Your task to perform on an android device: toggle translation in the chrome app Image 0: 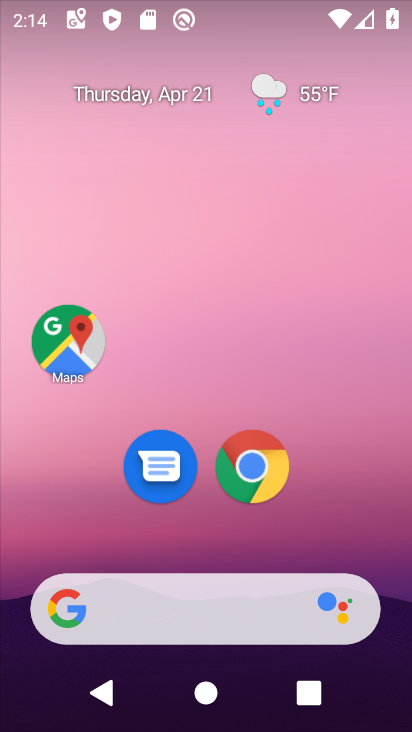
Step 0: drag from (346, 559) to (377, 24)
Your task to perform on an android device: toggle translation in the chrome app Image 1: 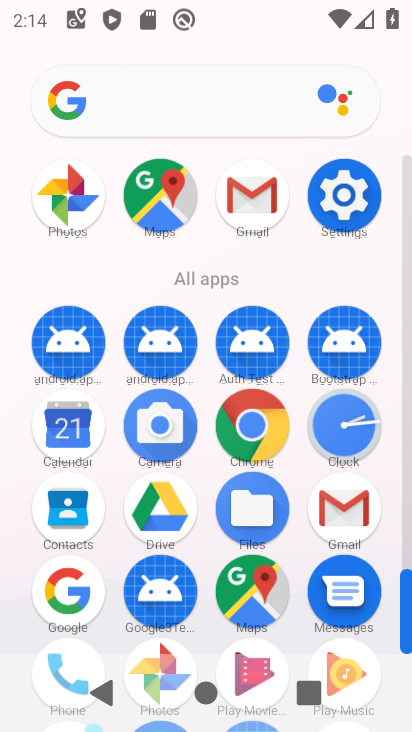
Step 1: click (249, 415)
Your task to perform on an android device: toggle translation in the chrome app Image 2: 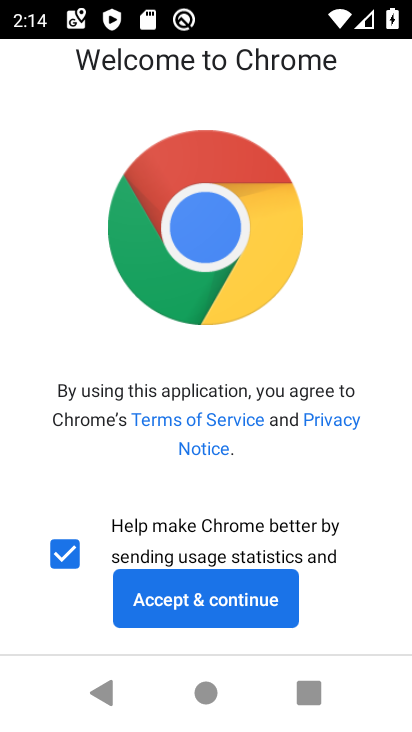
Step 2: click (171, 598)
Your task to perform on an android device: toggle translation in the chrome app Image 3: 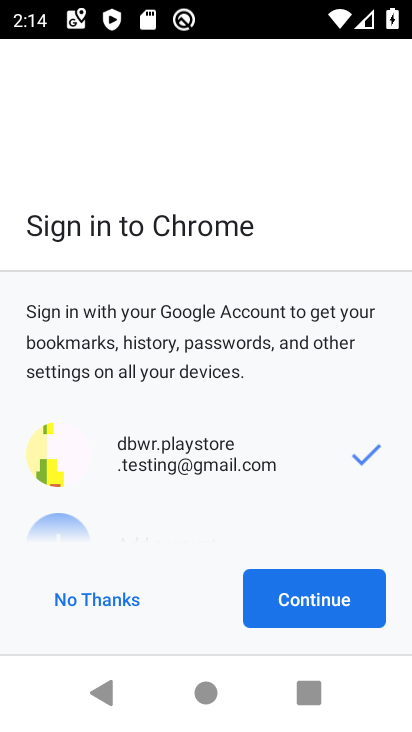
Step 3: click (112, 600)
Your task to perform on an android device: toggle translation in the chrome app Image 4: 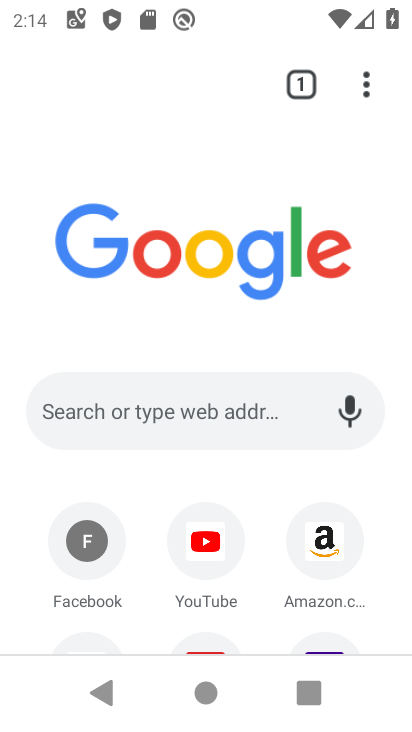
Step 4: click (360, 88)
Your task to perform on an android device: toggle translation in the chrome app Image 5: 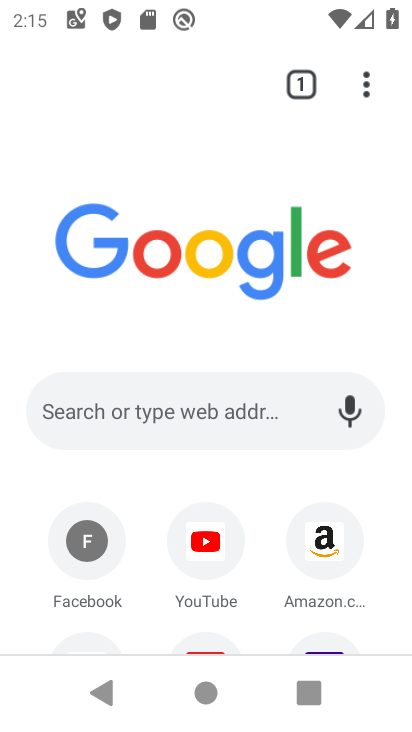
Step 5: drag from (359, 90) to (241, 516)
Your task to perform on an android device: toggle translation in the chrome app Image 6: 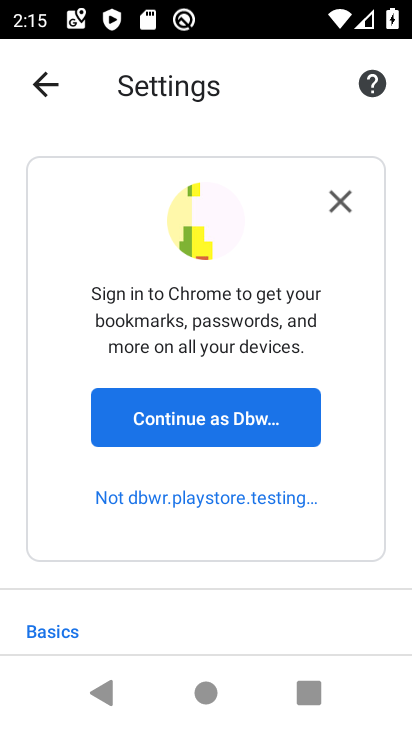
Step 6: drag from (197, 617) to (242, 53)
Your task to perform on an android device: toggle translation in the chrome app Image 7: 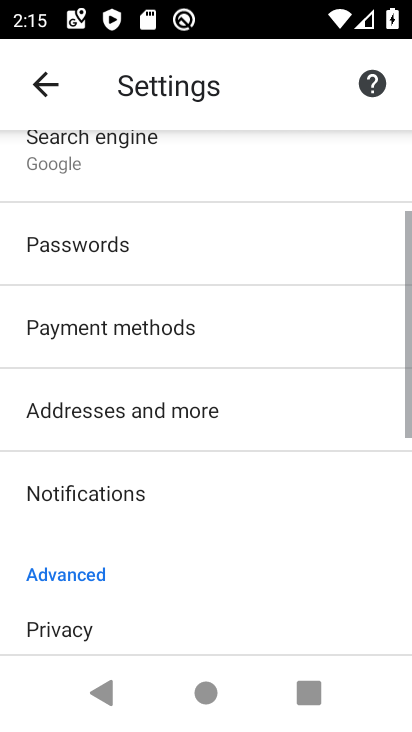
Step 7: drag from (151, 604) to (190, 201)
Your task to perform on an android device: toggle translation in the chrome app Image 8: 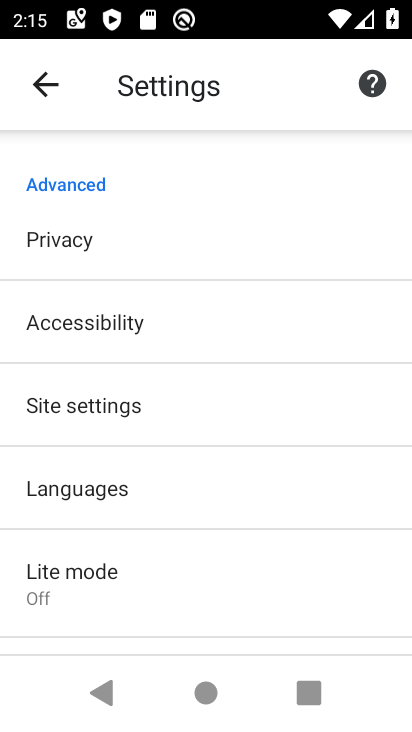
Step 8: click (99, 488)
Your task to perform on an android device: toggle translation in the chrome app Image 9: 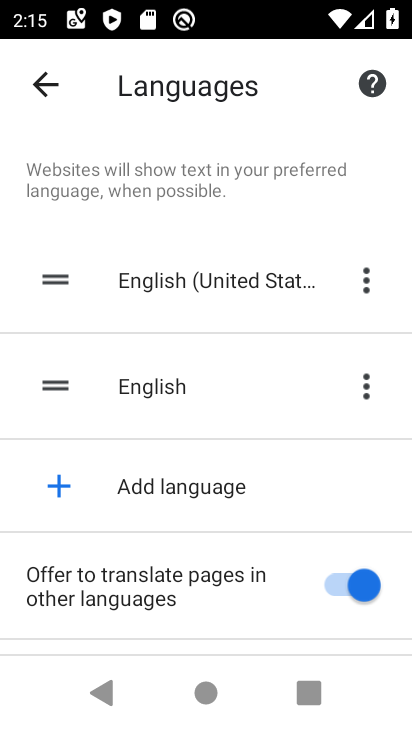
Step 9: click (328, 576)
Your task to perform on an android device: toggle translation in the chrome app Image 10: 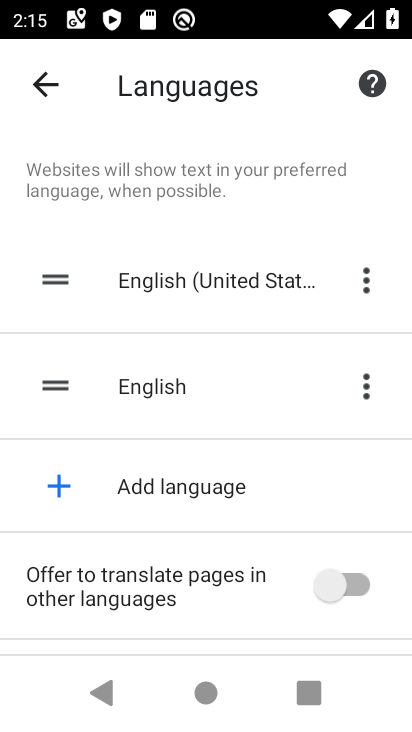
Step 10: task complete